Your task to perform on an android device: open app "Move to iOS" (install if not already installed) and go to login screen Image 0: 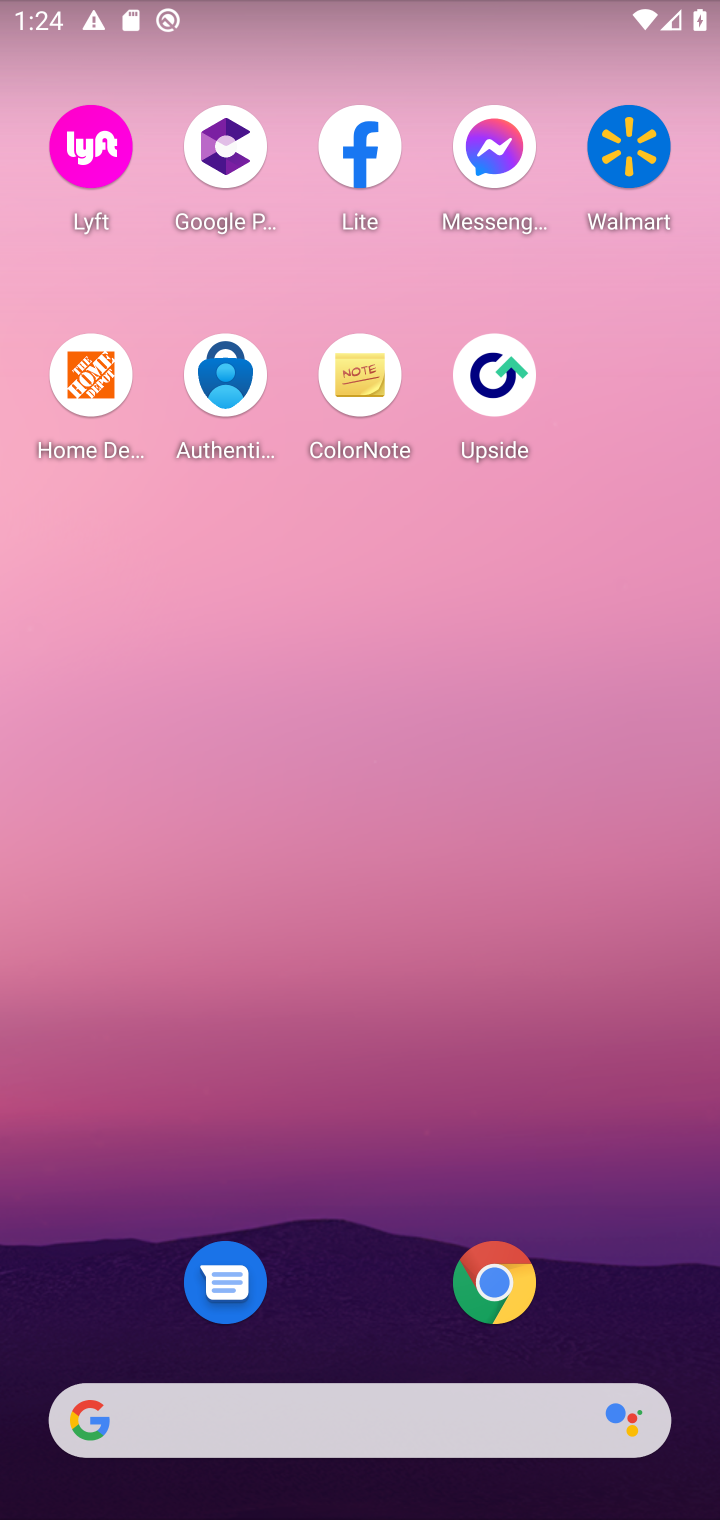
Step 0: drag from (376, 1225) to (352, 100)
Your task to perform on an android device: open app "Move to iOS" (install if not already installed) and go to login screen Image 1: 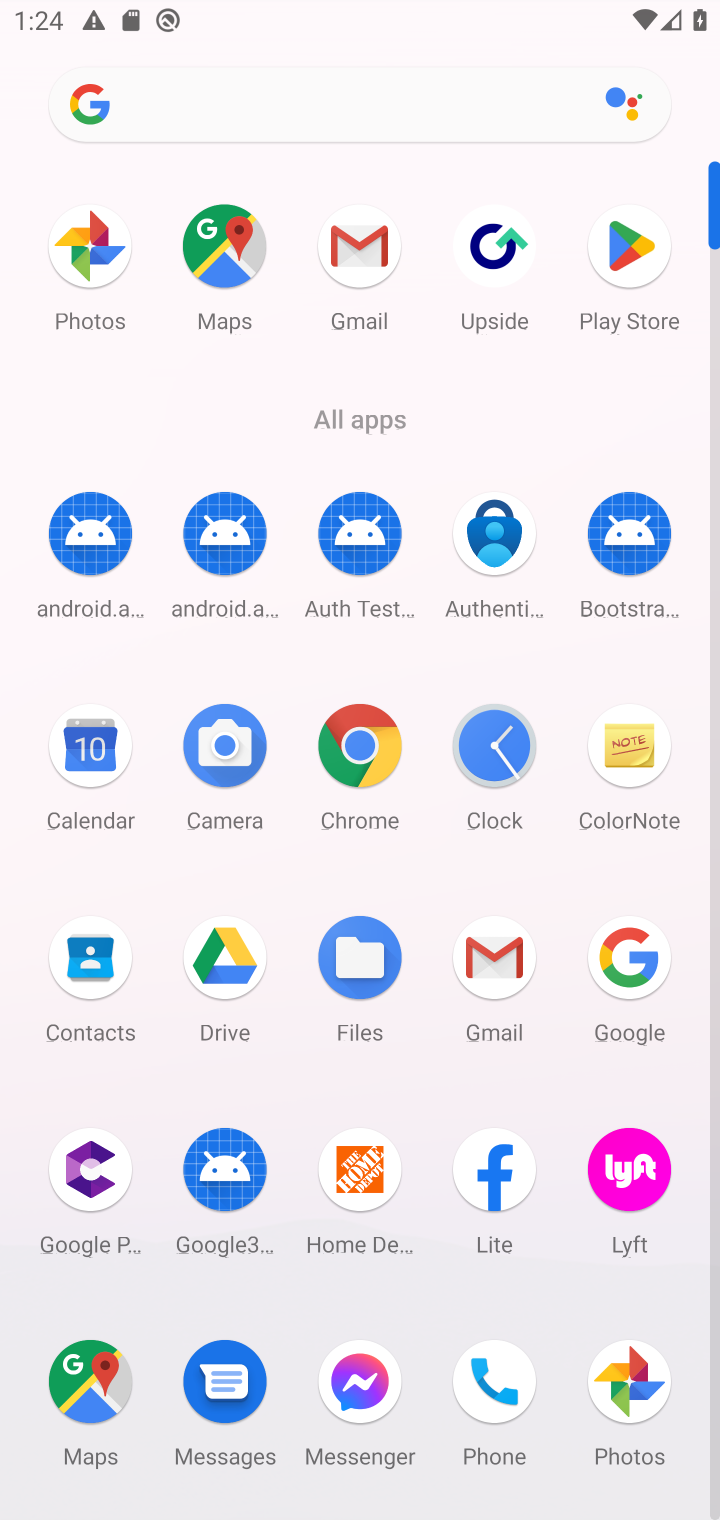
Step 1: click (623, 265)
Your task to perform on an android device: open app "Move to iOS" (install if not already installed) and go to login screen Image 2: 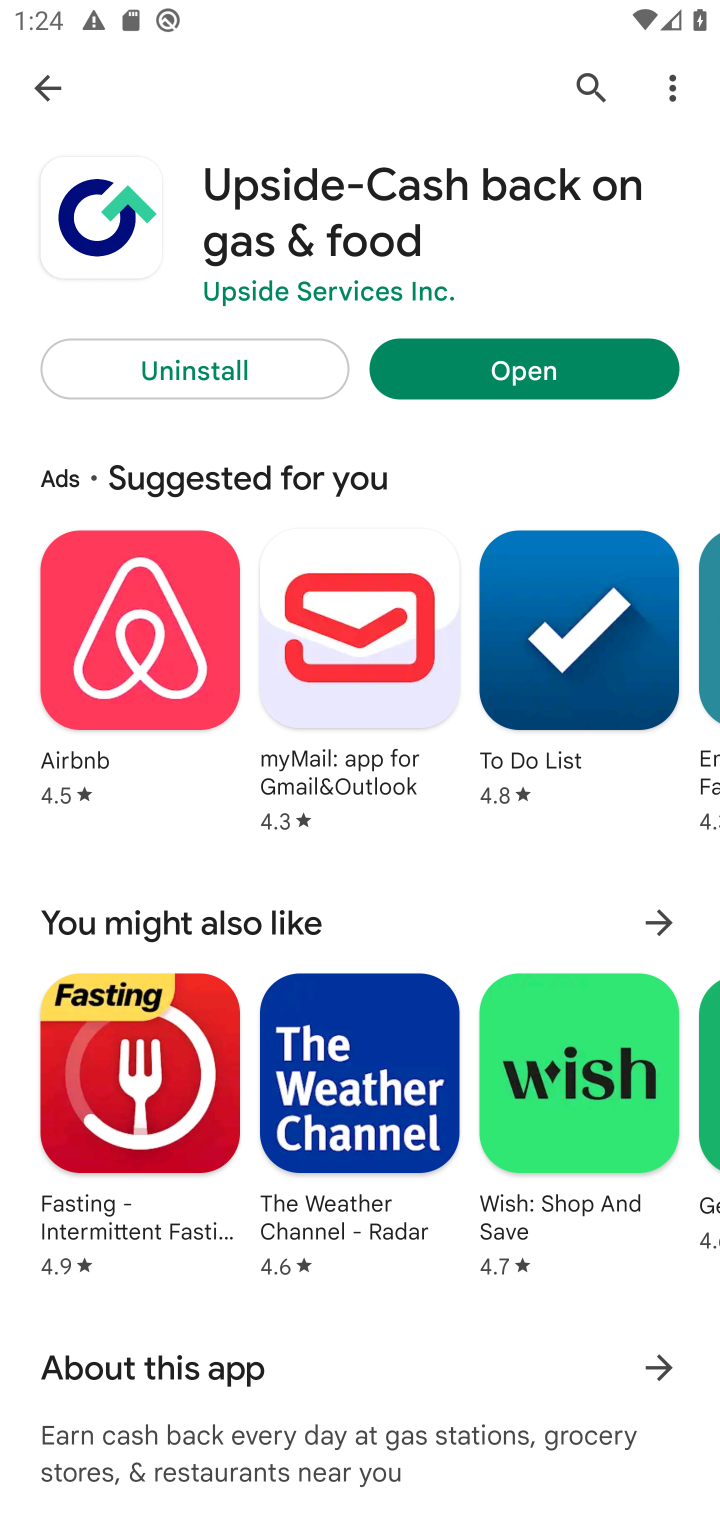
Step 2: click (584, 77)
Your task to perform on an android device: open app "Move to iOS" (install if not already installed) and go to login screen Image 3: 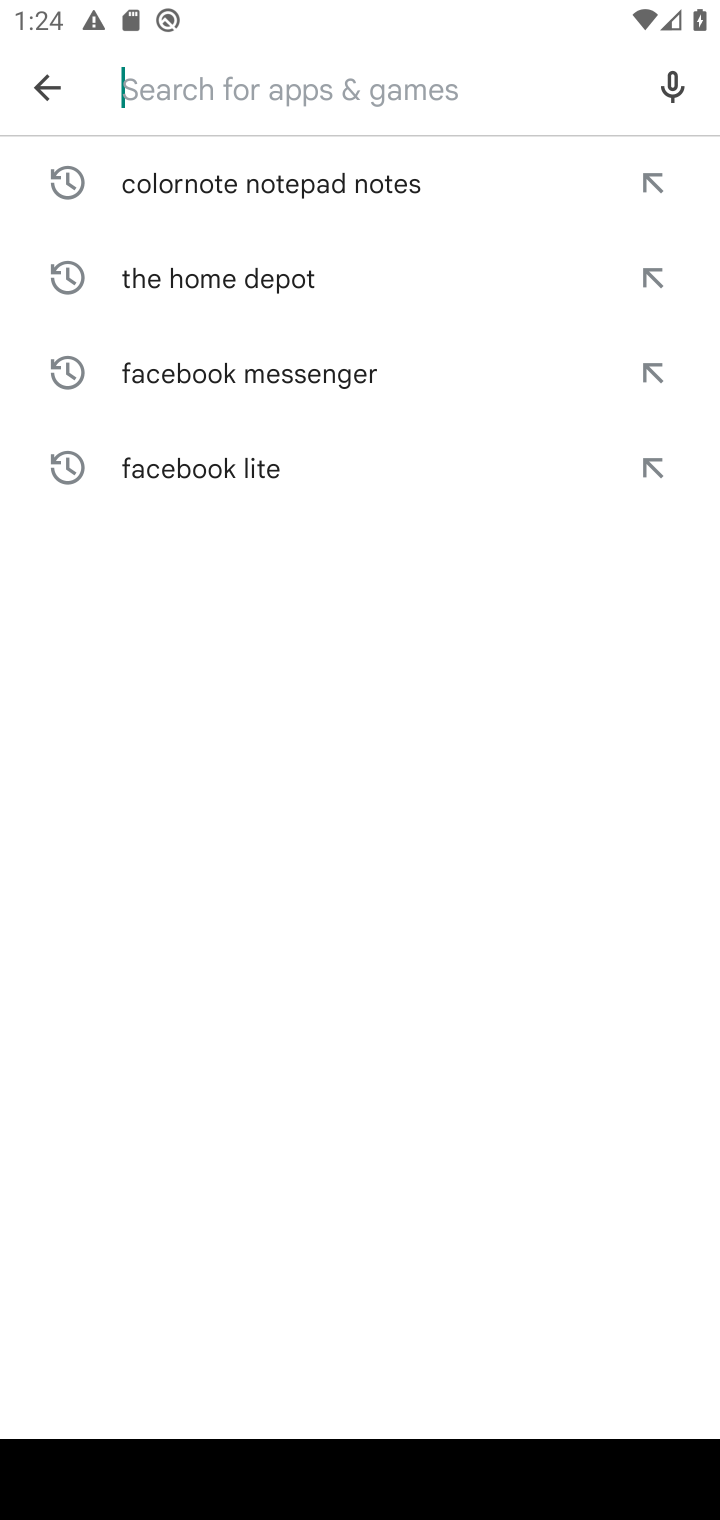
Step 3: type "Move to iOS"
Your task to perform on an android device: open app "Move to iOS" (install if not already installed) and go to login screen Image 4: 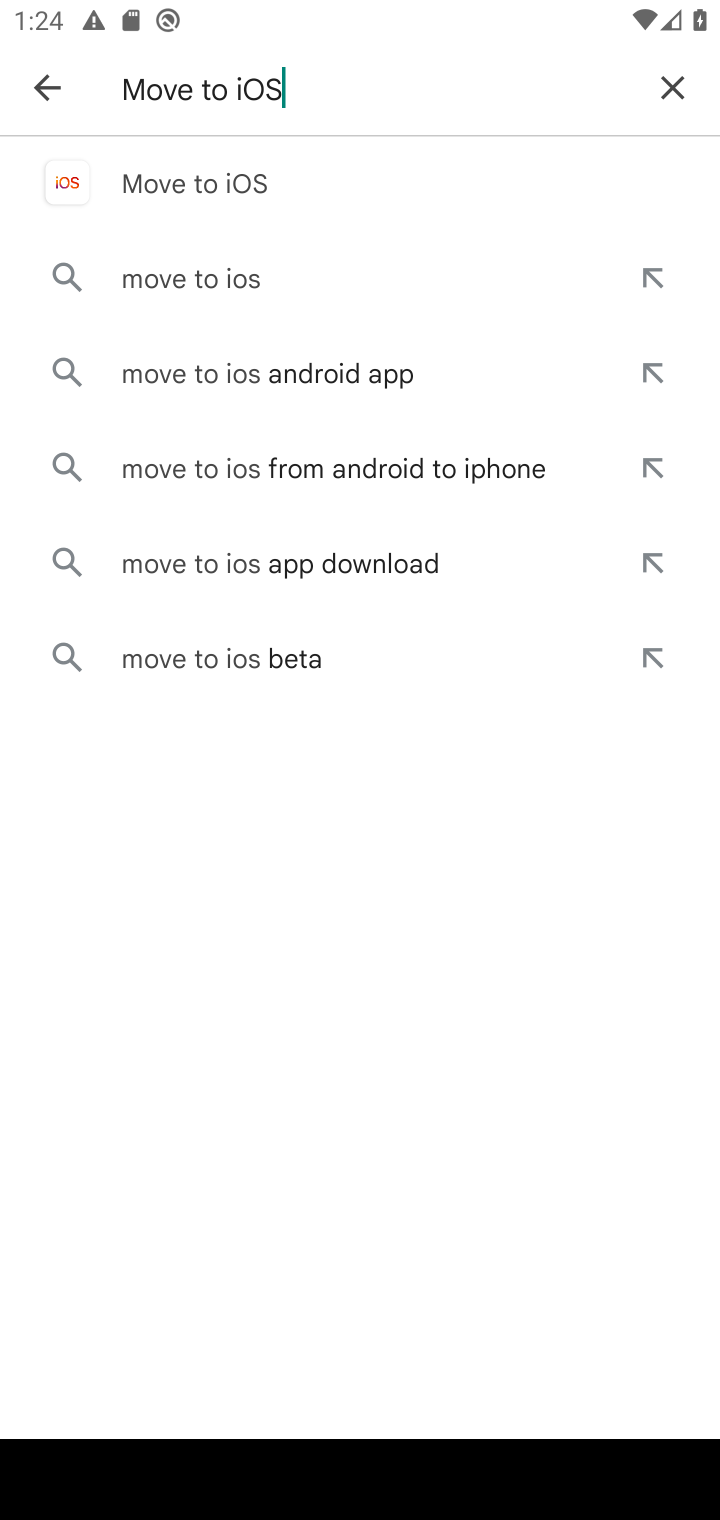
Step 4: click (280, 165)
Your task to perform on an android device: open app "Move to iOS" (install if not already installed) and go to login screen Image 5: 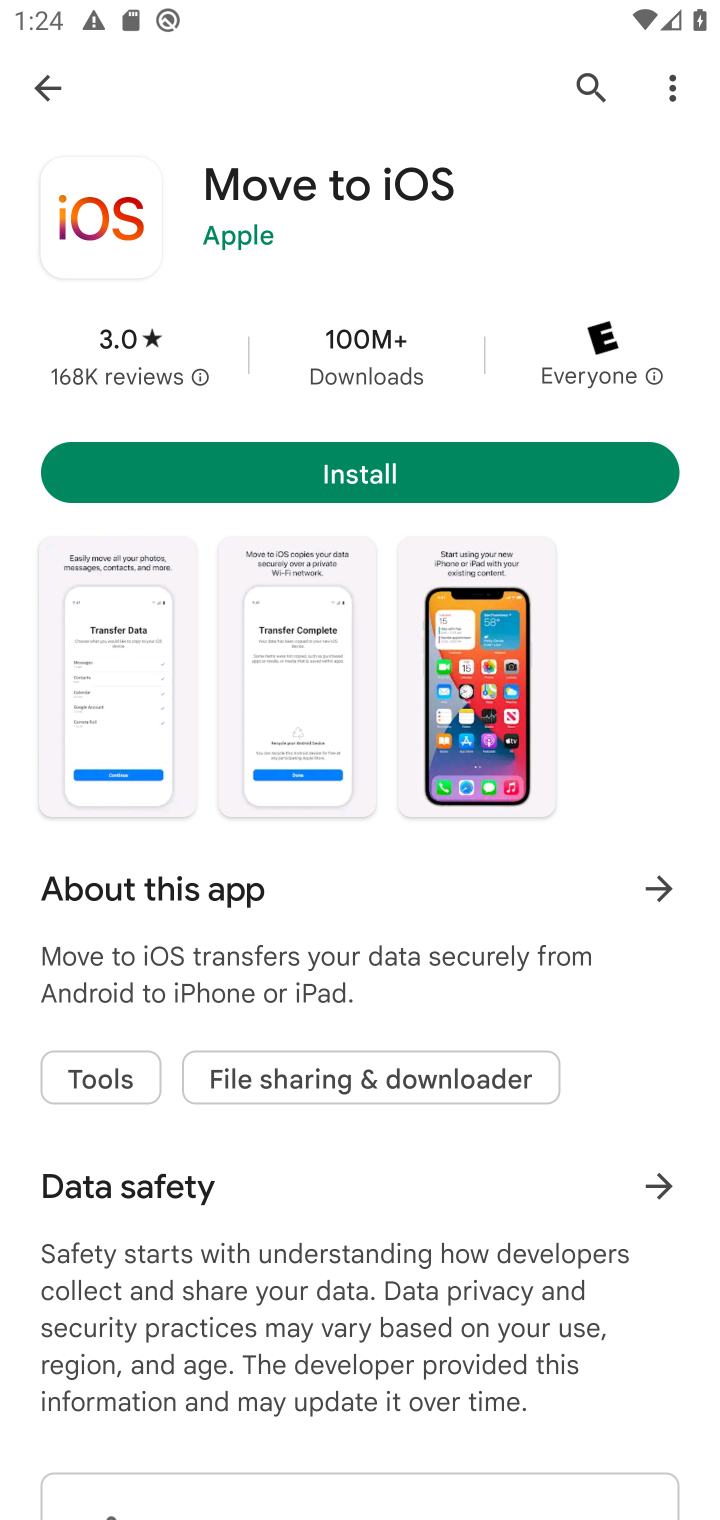
Step 5: click (211, 485)
Your task to perform on an android device: open app "Move to iOS" (install if not already installed) and go to login screen Image 6: 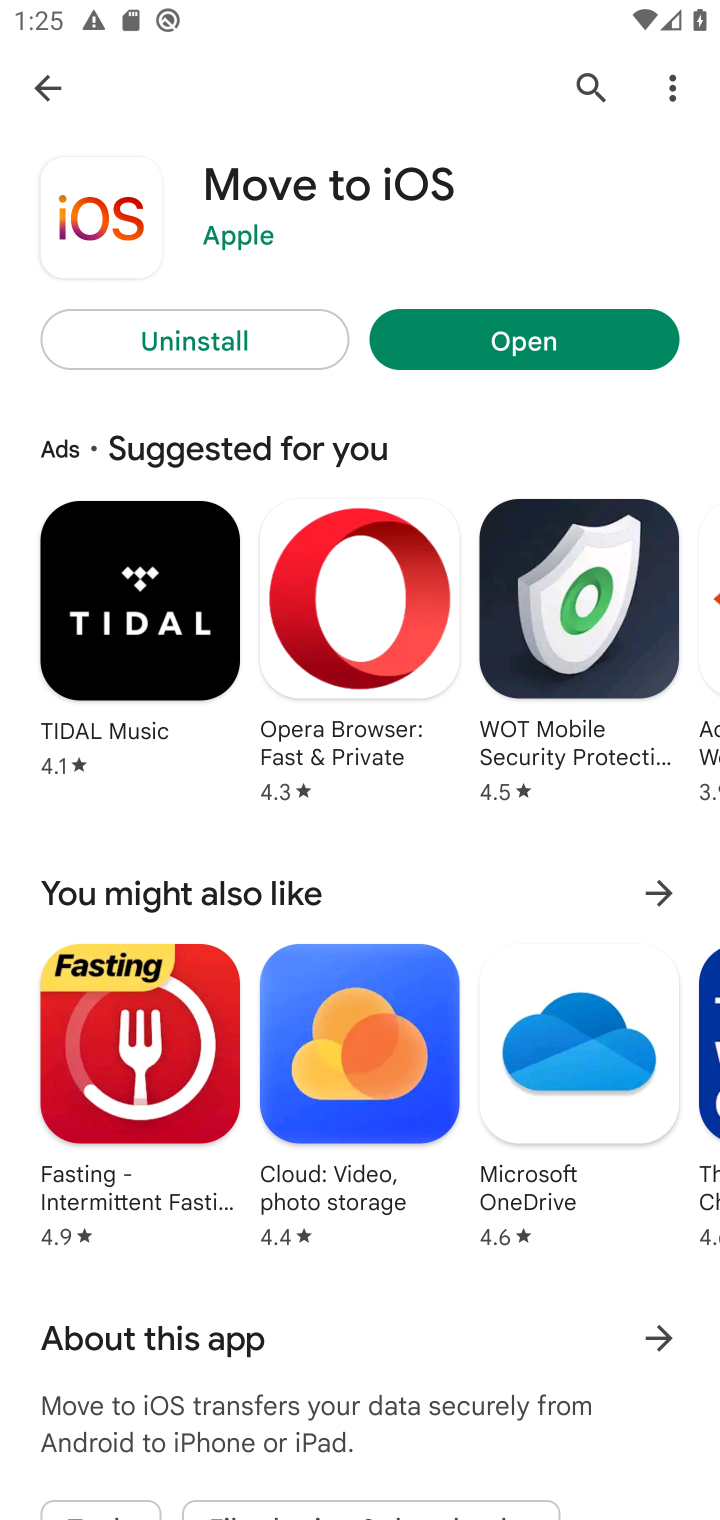
Step 6: click (489, 355)
Your task to perform on an android device: open app "Move to iOS" (install if not already installed) and go to login screen Image 7: 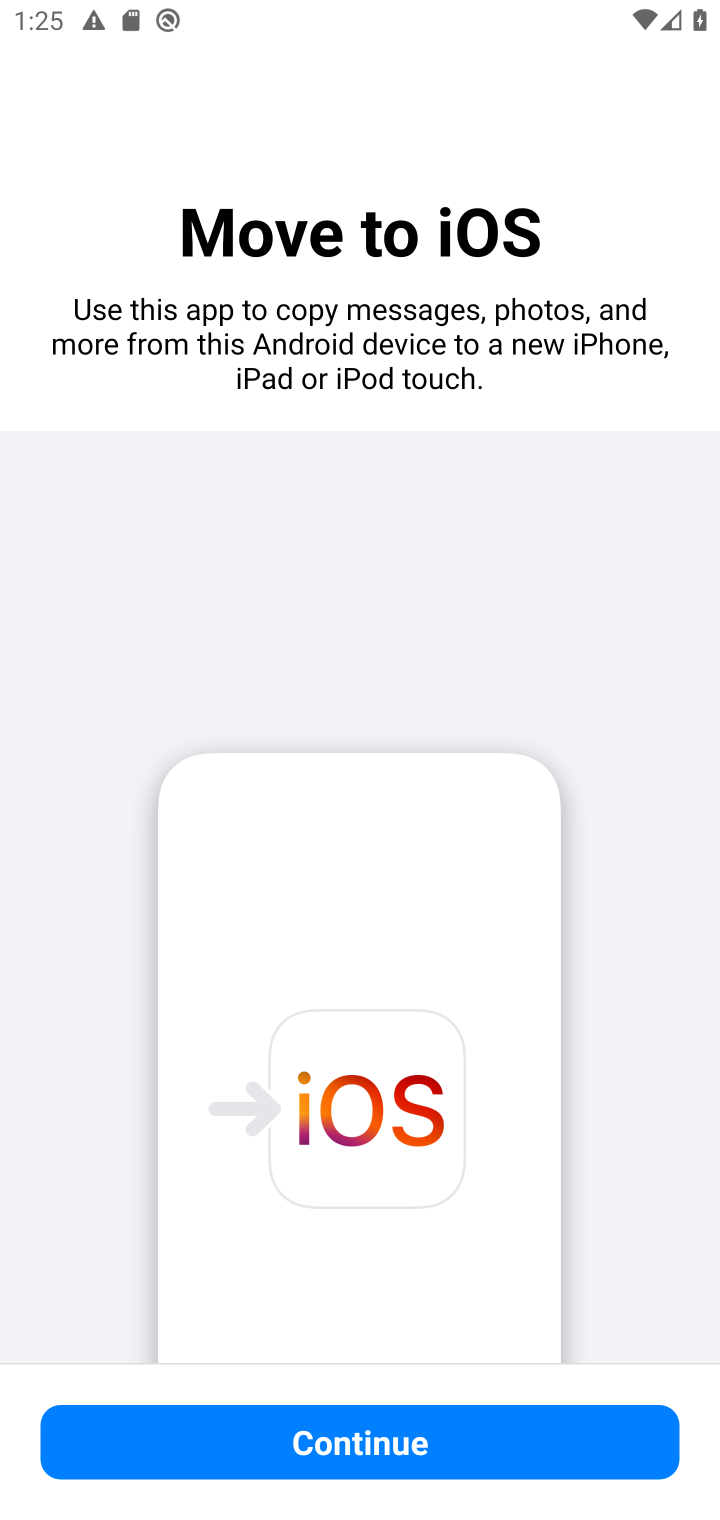
Step 7: click (320, 1437)
Your task to perform on an android device: open app "Move to iOS" (install if not already installed) and go to login screen Image 8: 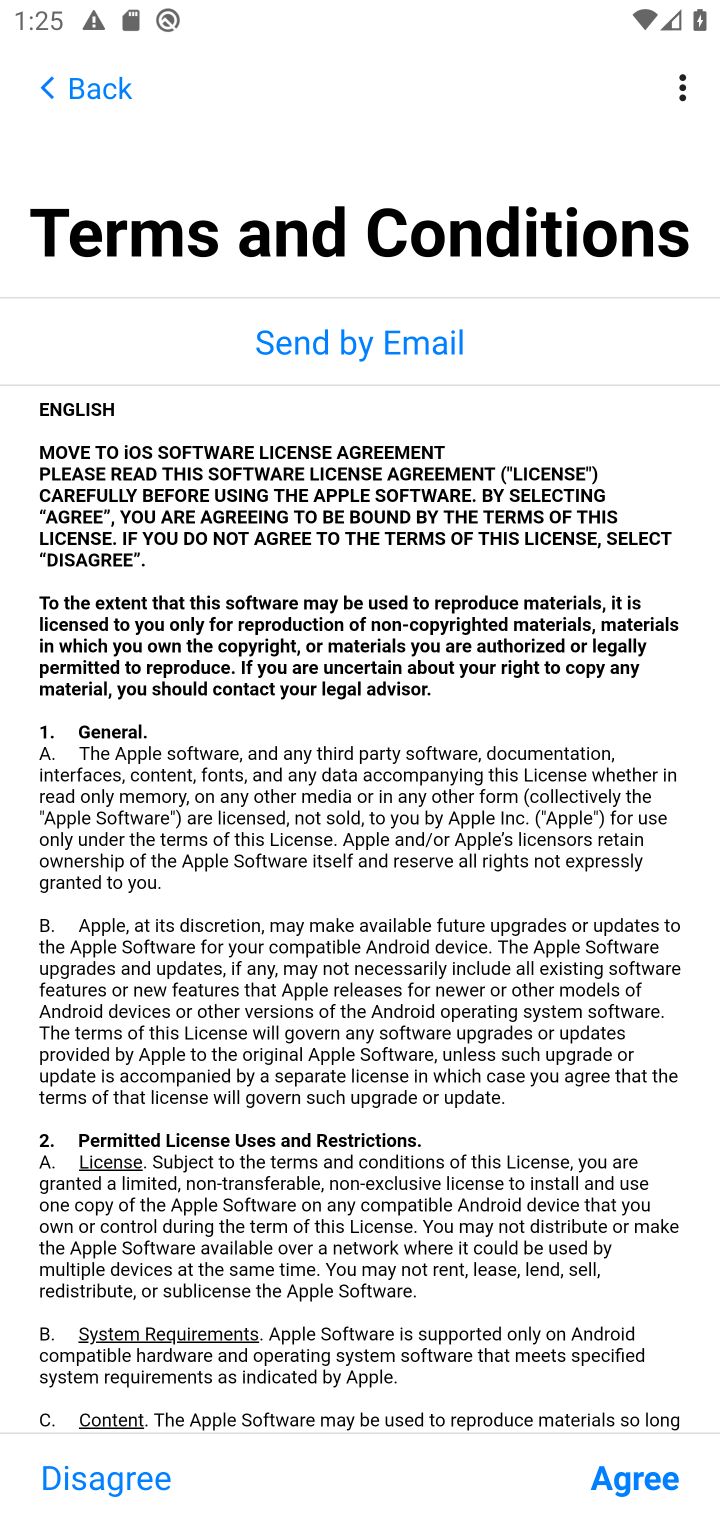
Step 8: click (580, 1460)
Your task to perform on an android device: open app "Move to iOS" (install if not already installed) and go to login screen Image 9: 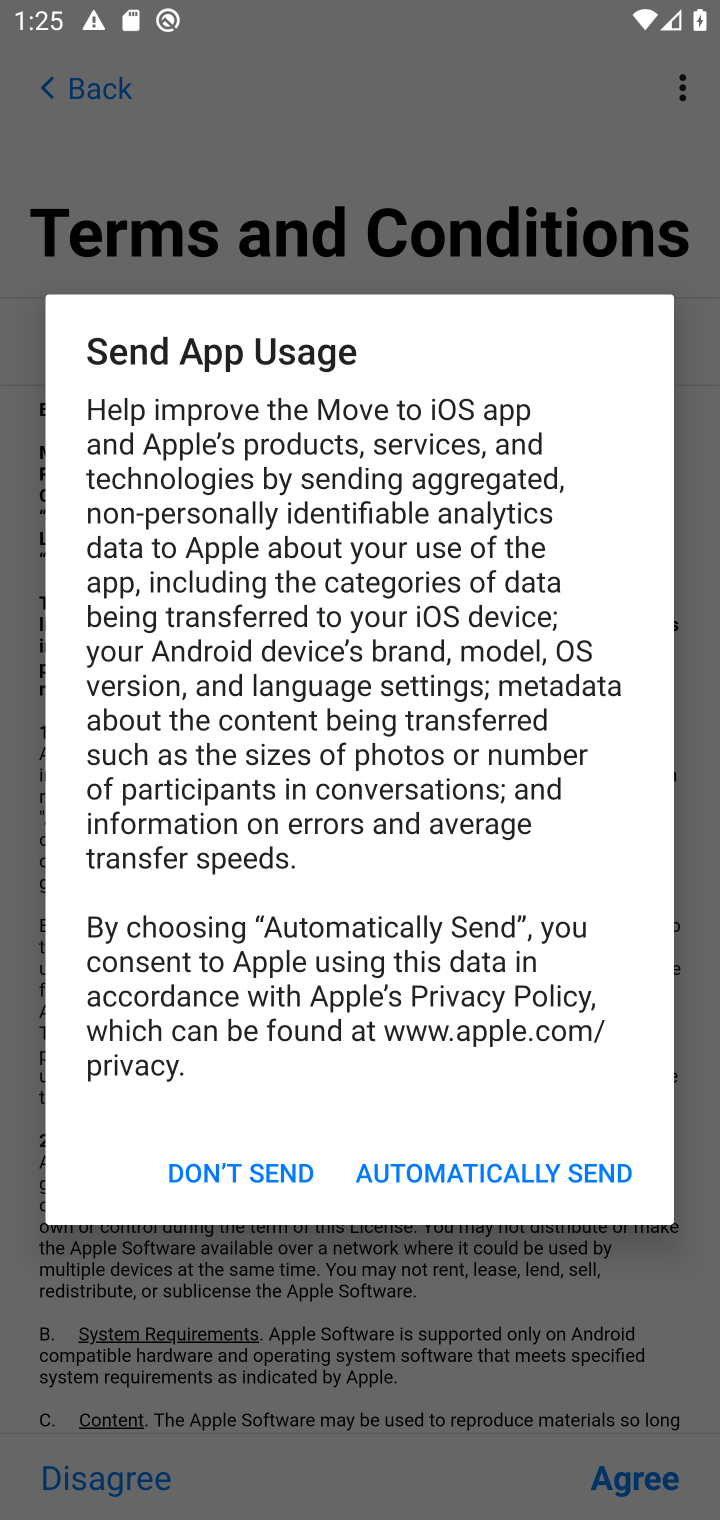
Step 9: click (495, 1148)
Your task to perform on an android device: open app "Move to iOS" (install if not already installed) and go to login screen Image 10: 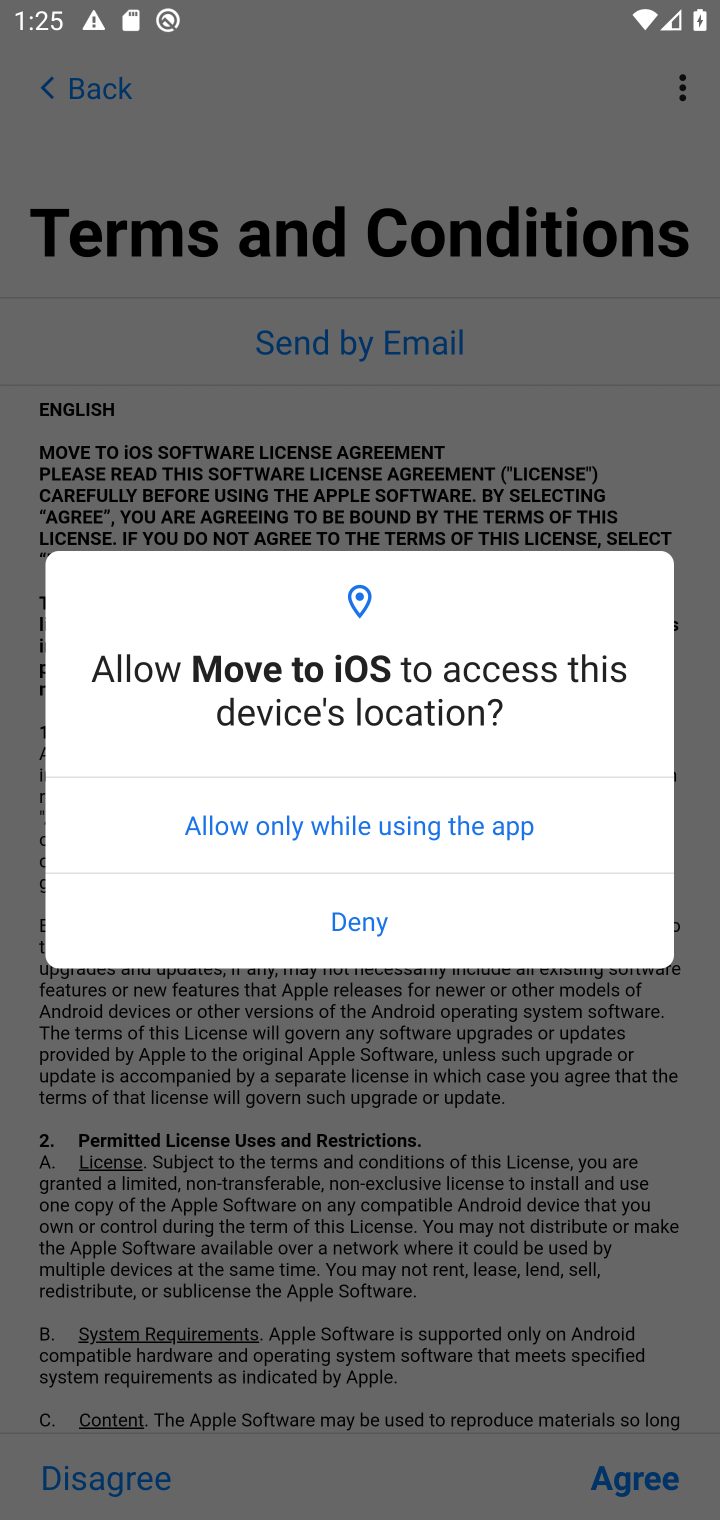
Step 10: click (364, 844)
Your task to perform on an android device: open app "Move to iOS" (install if not already installed) and go to login screen Image 11: 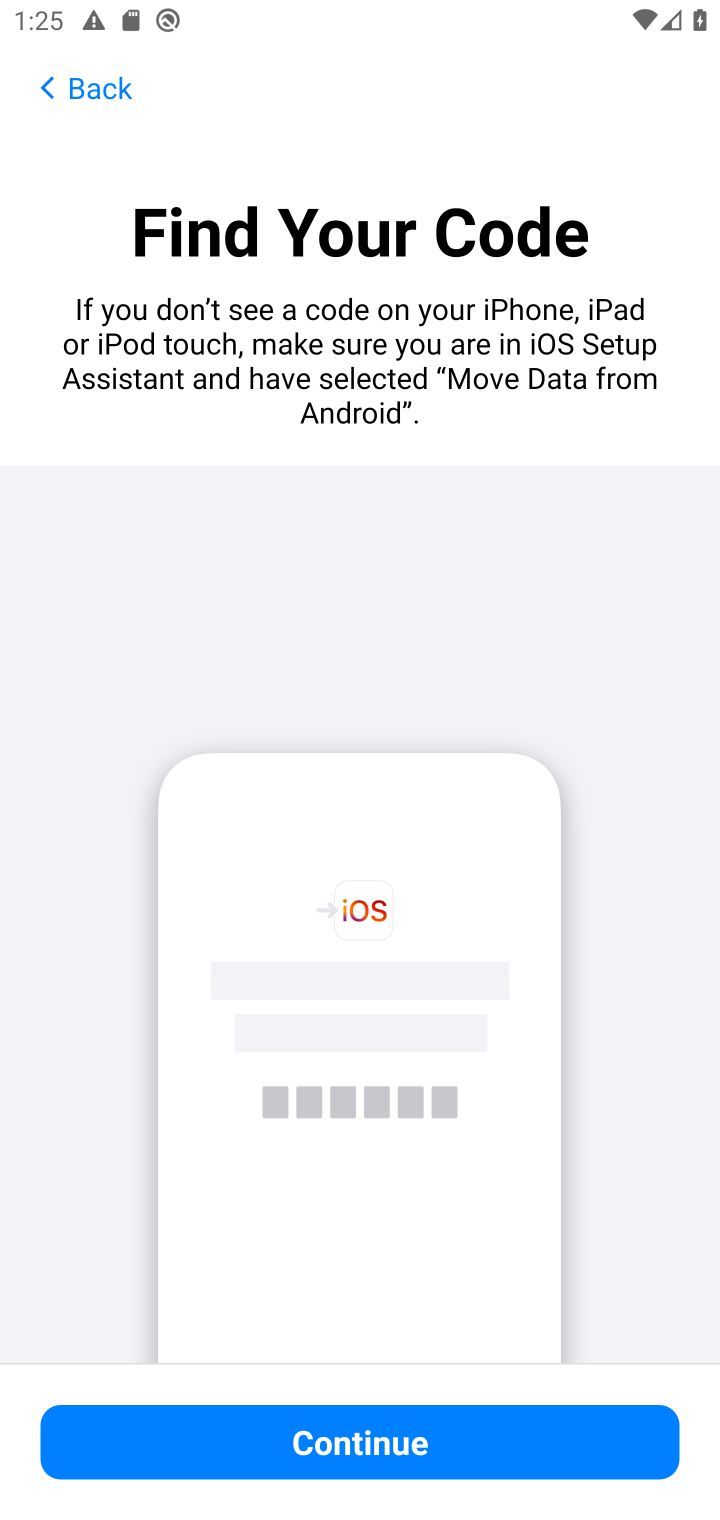
Step 11: click (486, 1417)
Your task to perform on an android device: open app "Move to iOS" (install if not already installed) and go to login screen Image 12: 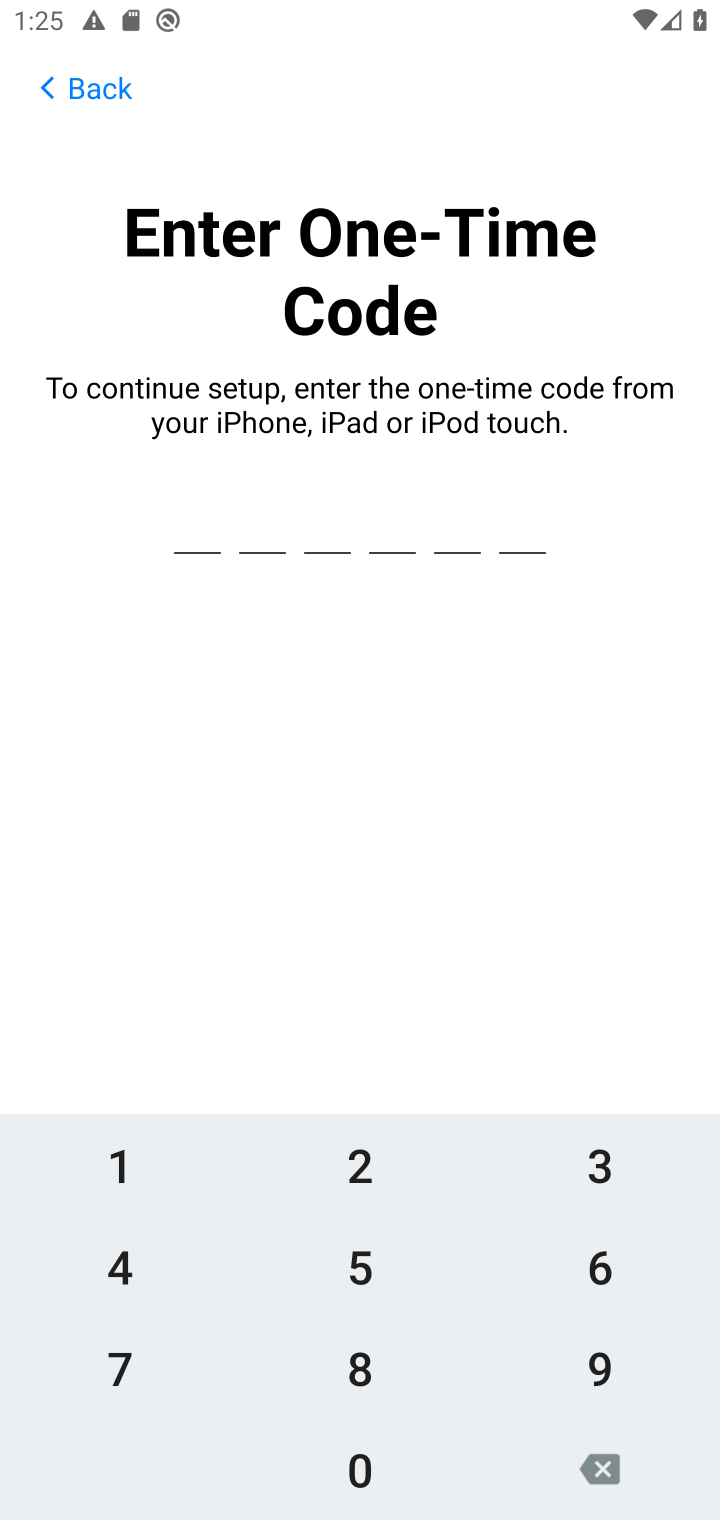
Step 12: task complete